Your task to perform on an android device: check the backup settings in the google photos Image 0: 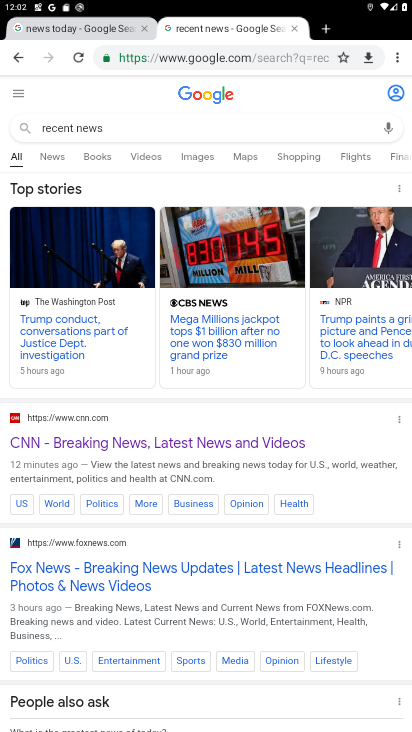
Step 0: press home button
Your task to perform on an android device: check the backup settings in the google photos Image 1: 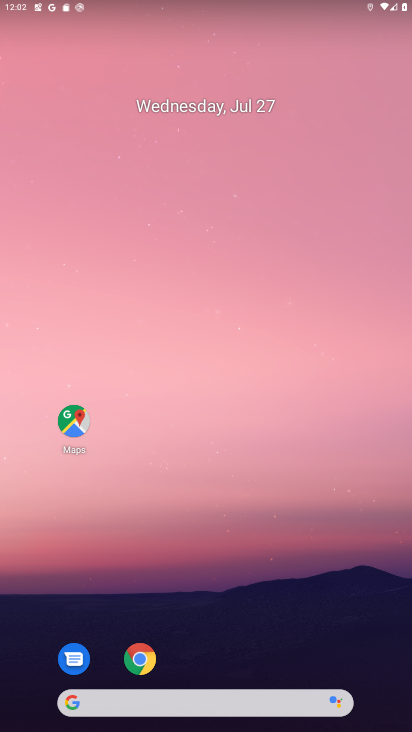
Step 1: drag from (155, 694) to (217, 7)
Your task to perform on an android device: check the backup settings in the google photos Image 2: 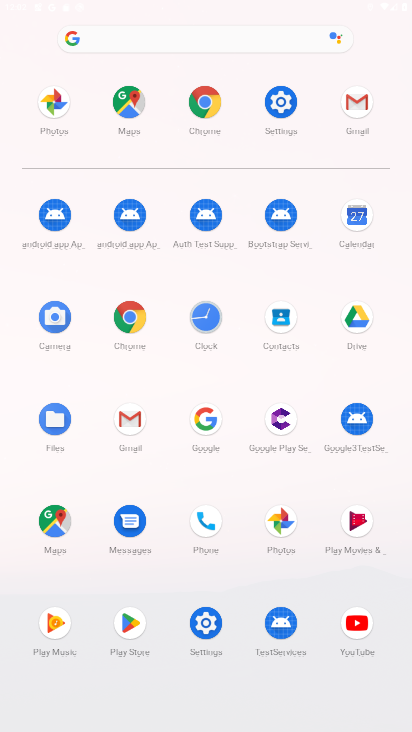
Step 2: click (278, 514)
Your task to perform on an android device: check the backup settings in the google photos Image 3: 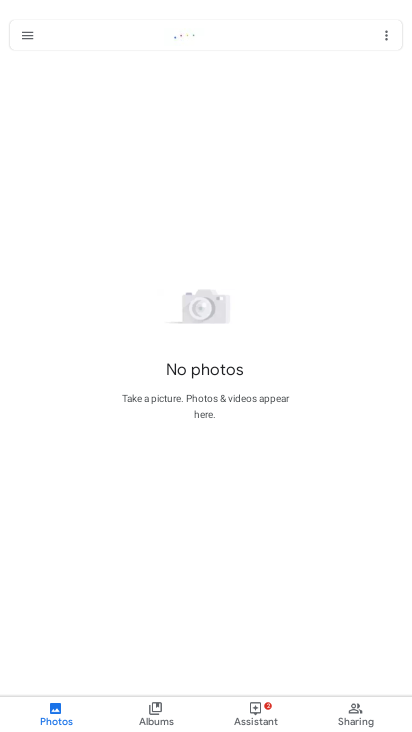
Step 3: click (21, 27)
Your task to perform on an android device: check the backup settings in the google photos Image 4: 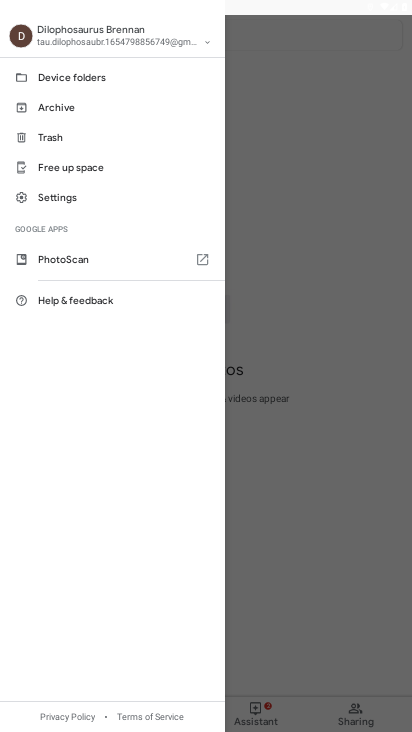
Step 4: click (94, 199)
Your task to perform on an android device: check the backup settings in the google photos Image 5: 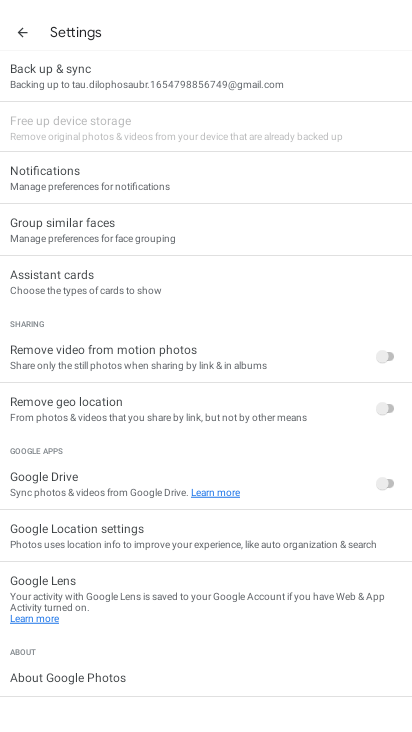
Step 5: click (140, 82)
Your task to perform on an android device: check the backup settings in the google photos Image 6: 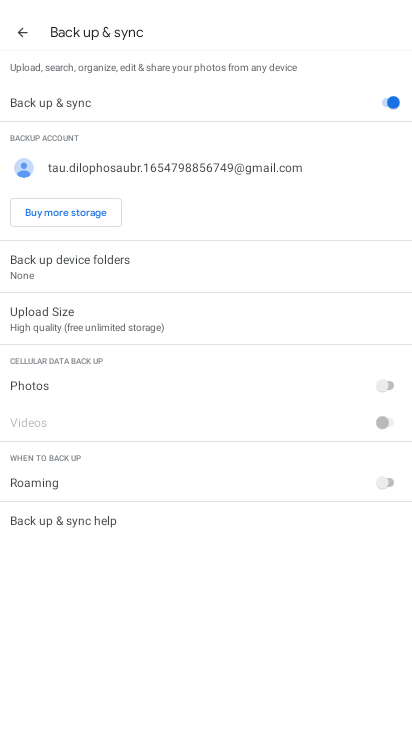
Step 6: task complete